Your task to perform on an android device: open app "Viber Messenger" (install if not already installed), go to login, and select forgot password Image 0: 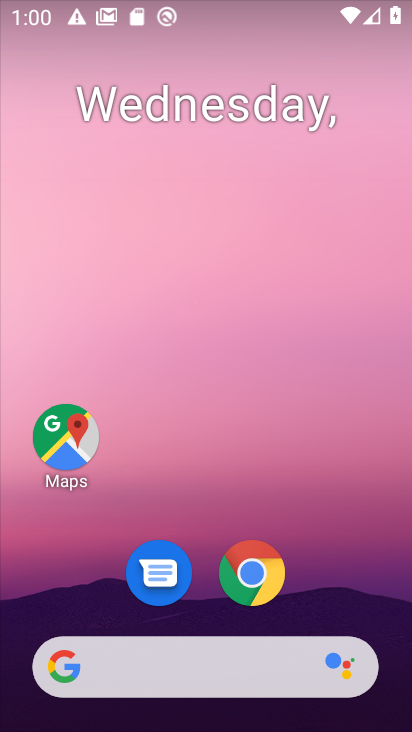
Step 0: press home button
Your task to perform on an android device: open app "Viber Messenger" (install if not already installed), go to login, and select forgot password Image 1: 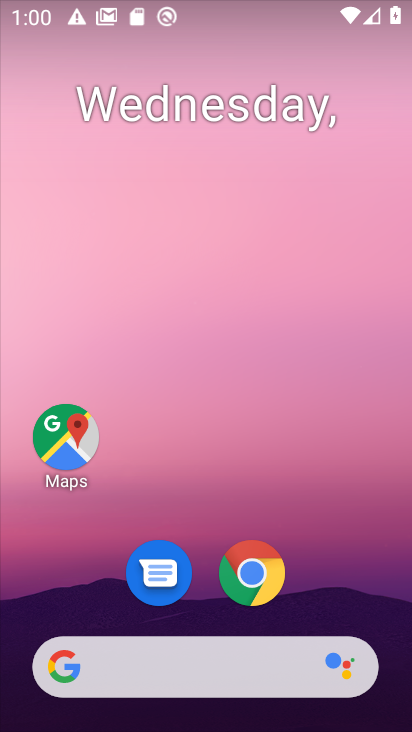
Step 1: drag from (318, 604) to (310, 104)
Your task to perform on an android device: open app "Viber Messenger" (install if not already installed), go to login, and select forgot password Image 2: 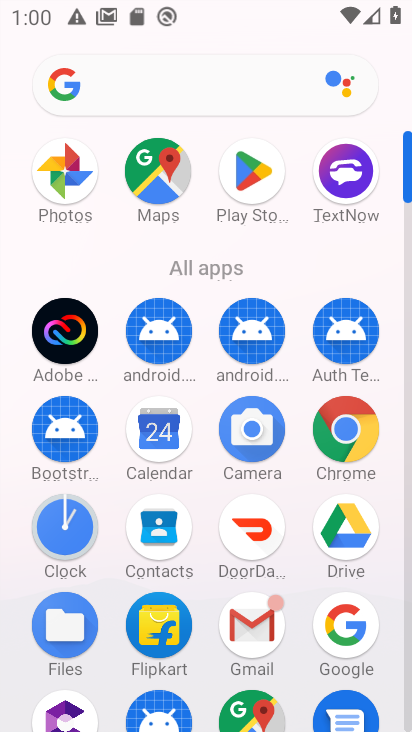
Step 2: click (244, 159)
Your task to perform on an android device: open app "Viber Messenger" (install if not already installed), go to login, and select forgot password Image 3: 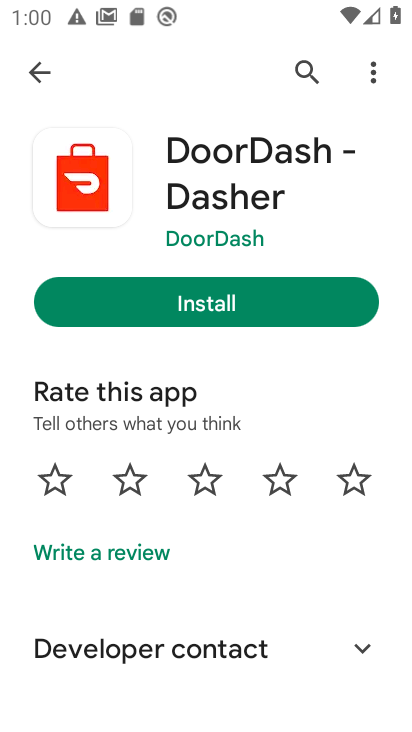
Step 3: click (312, 68)
Your task to perform on an android device: open app "Viber Messenger" (install if not already installed), go to login, and select forgot password Image 4: 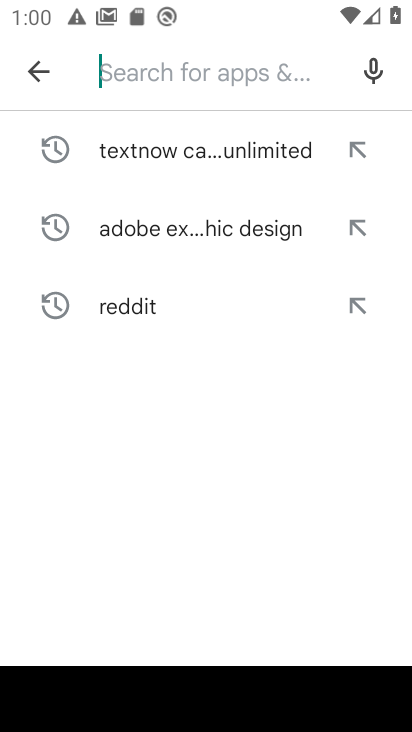
Step 4: type "Viber Messenger"
Your task to perform on an android device: open app "Viber Messenger" (install if not already installed), go to login, and select forgot password Image 5: 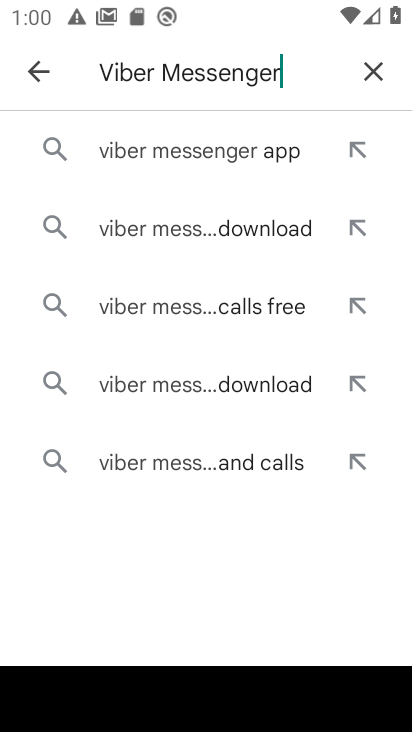
Step 5: click (216, 145)
Your task to perform on an android device: open app "Viber Messenger" (install if not already installed), go to login, and select forgot password Image 6: 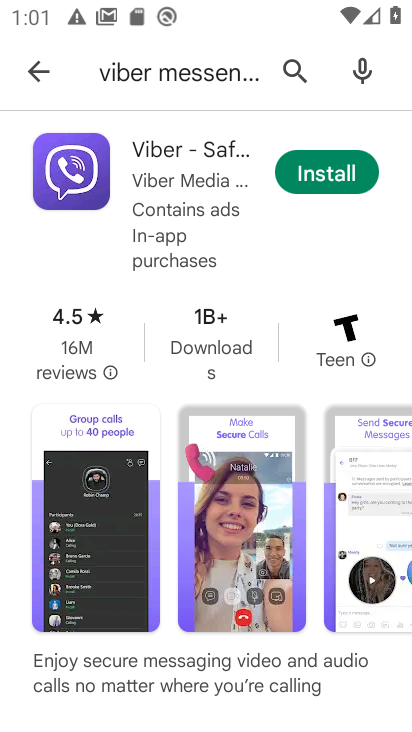
Step 6: click (329, 169)
Your task to perform on an android device: open app "Viber Messenger" (install if not already installed), go to login, and select forgot password Image 7: 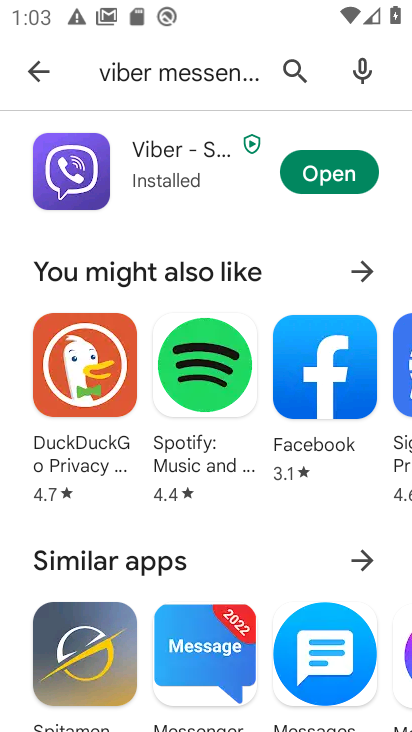
Step 7: click (316, 174)
Your task to perform on an android device: open app "Viber Messenger" (install if not already installed), go to login, and select forgot password Image 8: 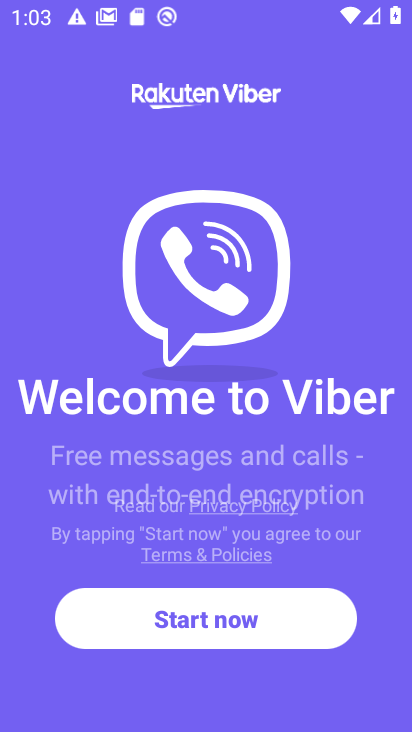
Step 8: click (211, 622)
Your task to perform on an android device: open app "Viber Messenger" (install if not already installed), go to login, and select forgot password Image 9: 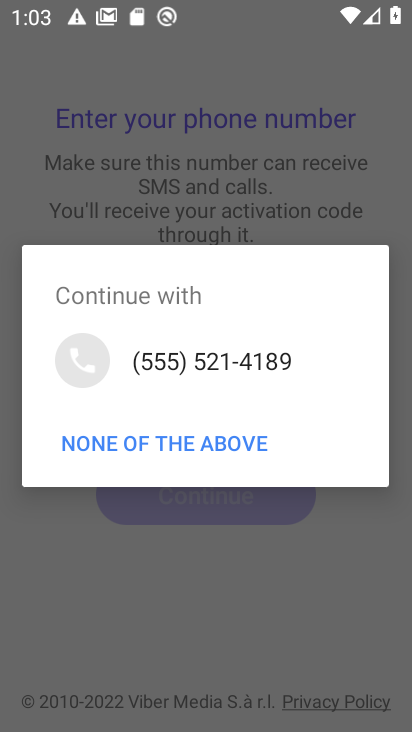
Step 9: click (123, 360)
Your task to perform on an android device: open app "Viber Messenger" (install if not already installed), go to login, and select forgot password Image 10: 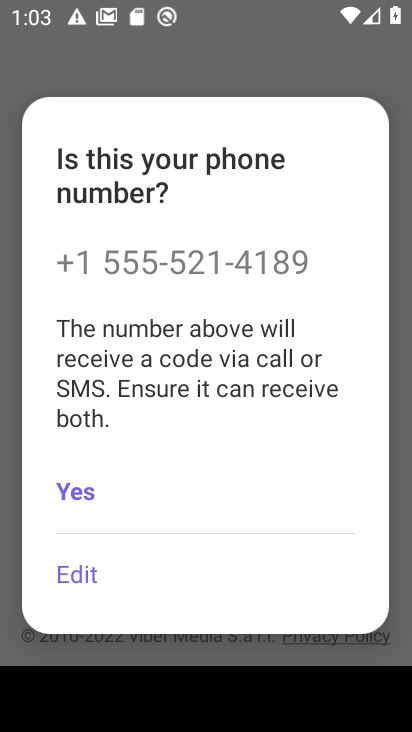
Step 10: click (108, 506)
Your task to perform on an android device: open app "Viber Messenger" (install if not already installed), go to login, and select forgot password Image 11: 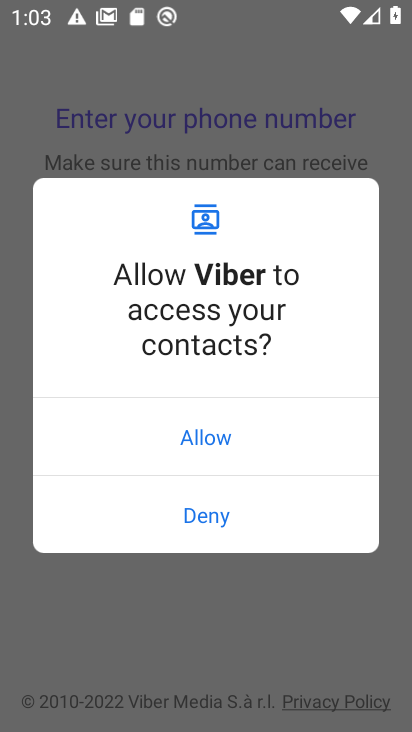
Step 11: click (203, 456)
Your task to perform on an android device: open app "Viber Messenger" (install if not already installed), go to login, and select forgot password Image 12: 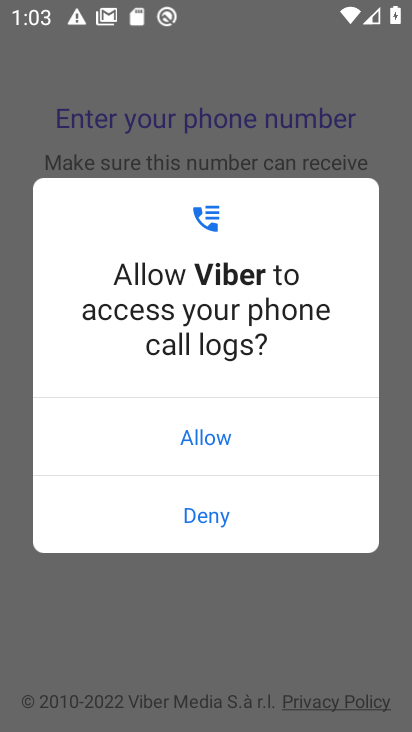
Step 12: click (197, 422)
Your task to perform on an android device: open app "Viber Messenger" (install if not already installed), go to login, and select forgot password Image 13: 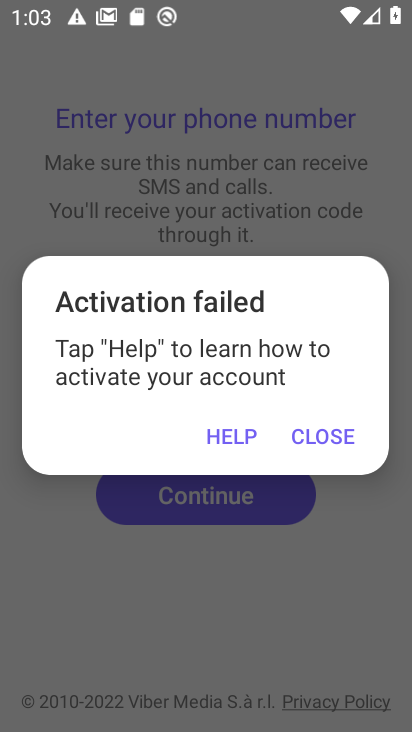
Step 13: click (320, 441)
Your task to perform on an android device: open app "Viber Messenger" (install if not already installed), go to login, and select forgot password Image 14: 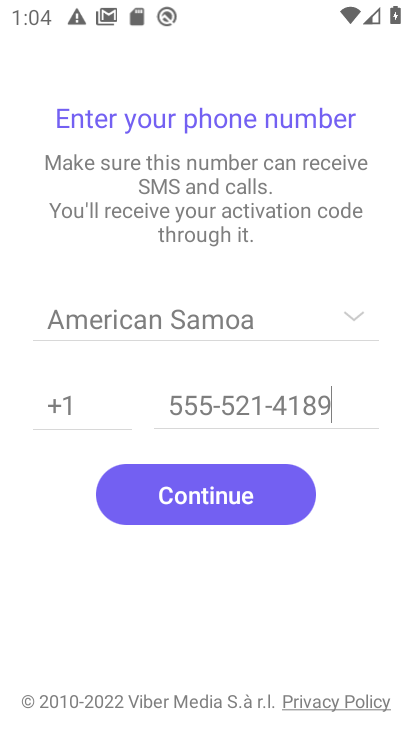
Step 14: click (229, 492)
Your task to perform on an android device: open app "Viber Messenger" (install if not already installed), go to login, and select forgot password Image 15: 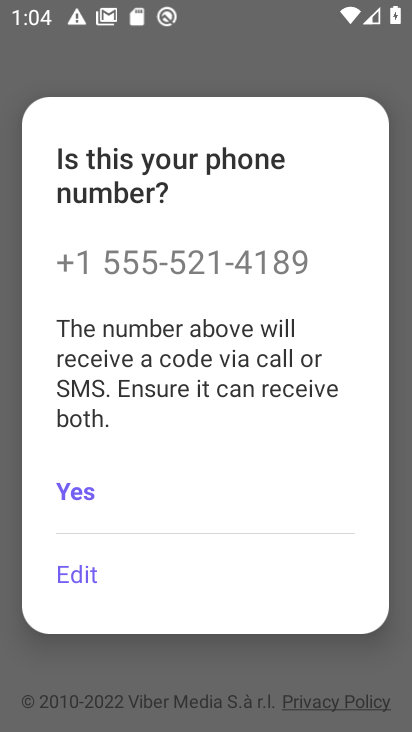
Step 15: click (115, 499)
Your task to perform on an android device: open app "Viber Messenger" (install if not already installed), go to login, and select forgot password Image 16: 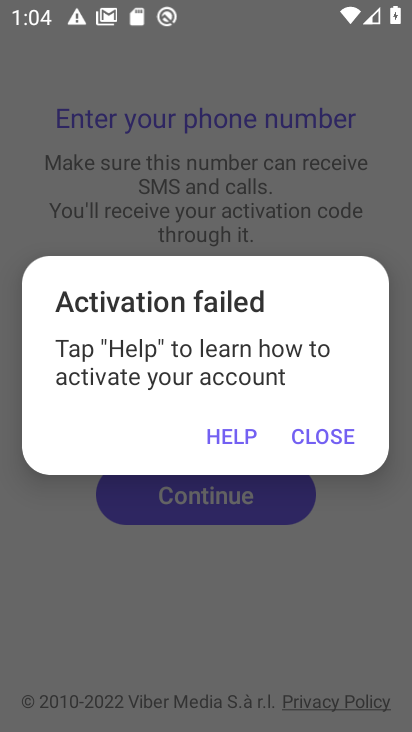
Step 16: click (321, 441)
Your task to perform on an android device: open app "Viber Messenger" (install if not already installed), go to login, and select forgot password Image 17: 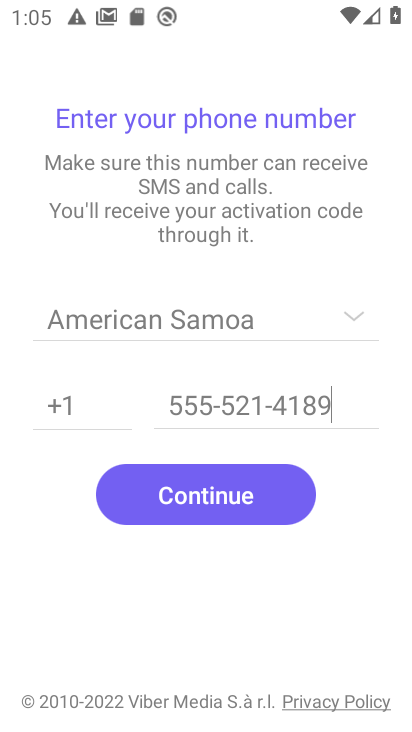
Step 17: task complete